Your task to perform on an android device: manage bookmarks in the chrome app Image 0: 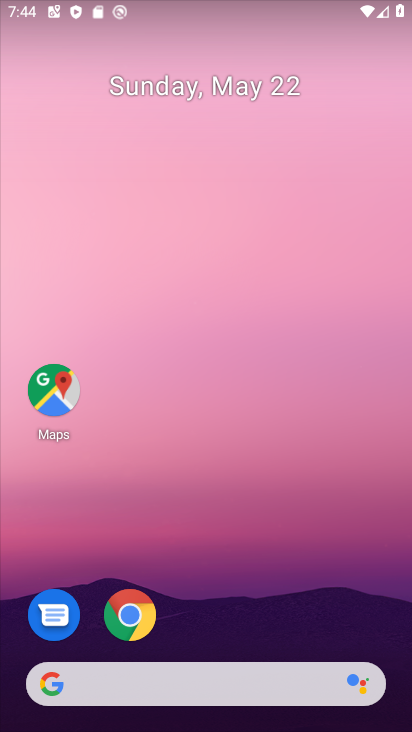
Step 0: click (120, 625)
Your task to perform on an android device: manage bookmarks in the chrome app Image 1: 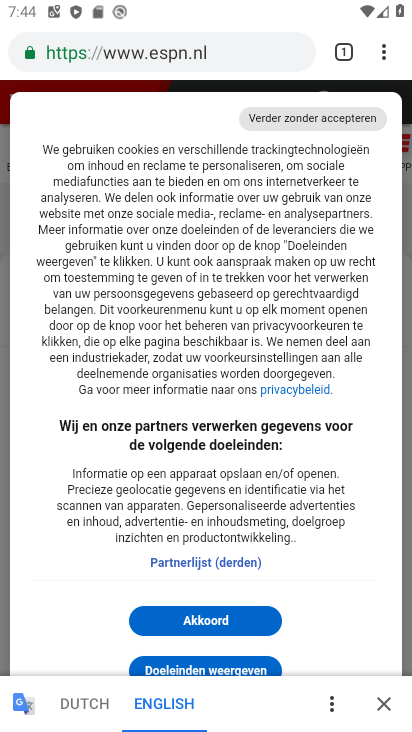
Step 1: click (377, 54)
Your task to perform on an android device: manage bookmarks in the chrome app Image 2: 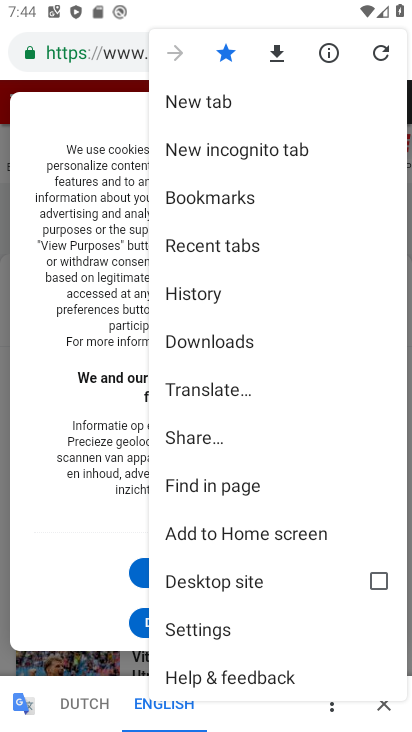
Step 2: click (247, 205)
Your task to perform on an android device: manage bookmarks in the chrome app Image 3: 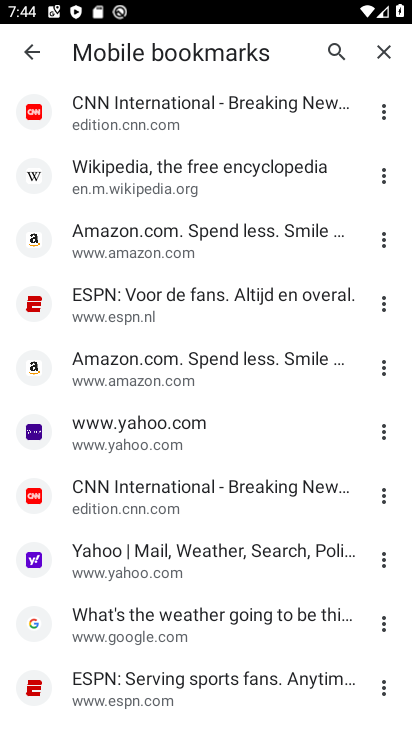
Step 3: click (375, 177)
Your task to perform on an android device: manage bookmarks in the chrome app Image 4: 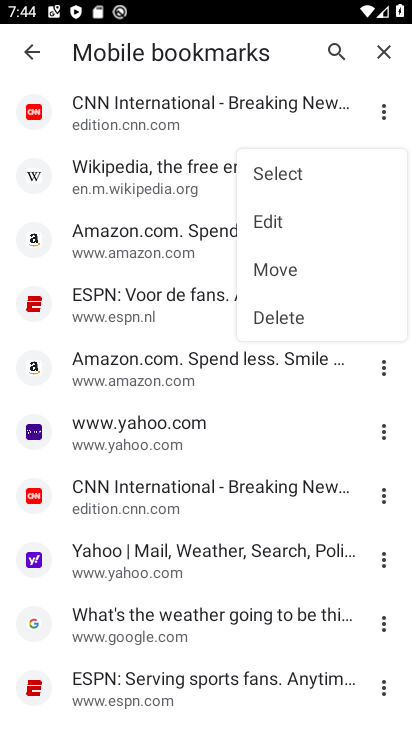
Step 4: click (266, 220)
Your task to perform on an android device: manage bookmarks in the chrome app Image 5: 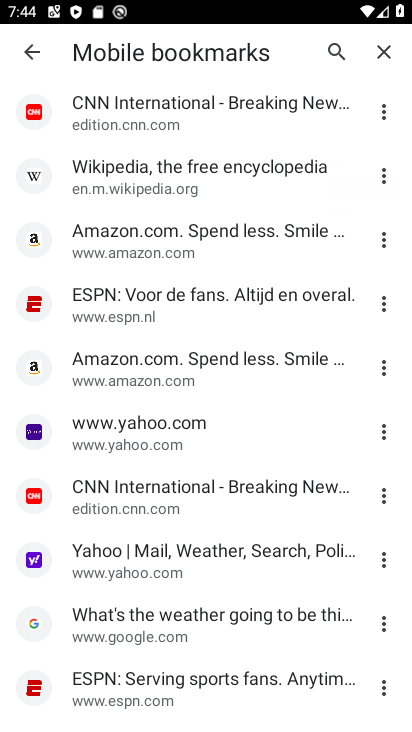
Step 5: click (266, 220)
Your task to perform on an android device: manage bookmarks in the chrome app Image 6: 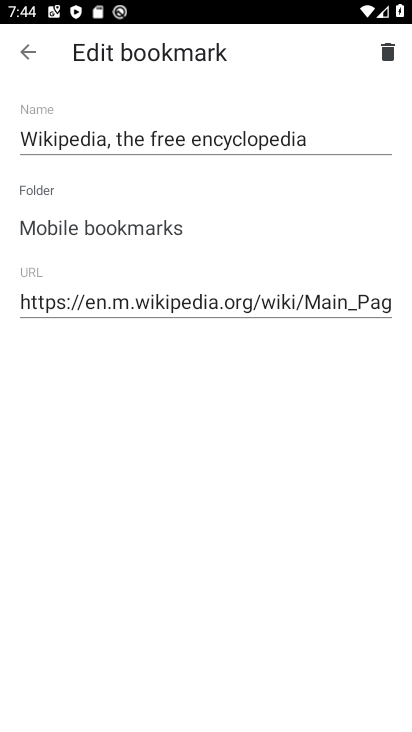
Step 6: task complete